Your task to perform on an android device: Open Reddit.com Image 0: 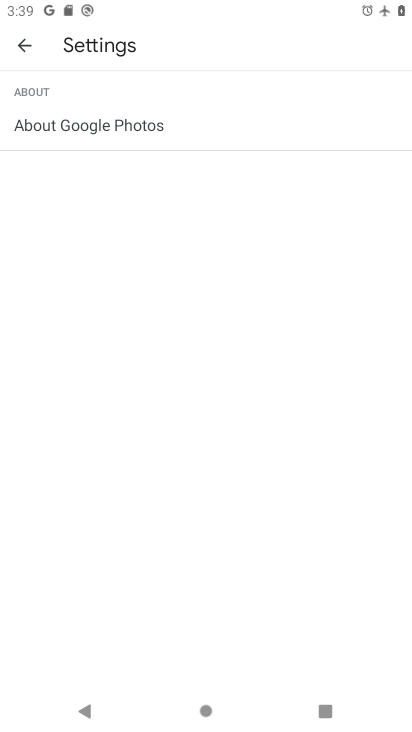
Step 0: press home button
Your task to perform on an android device: Open Reddit.com Image 1: 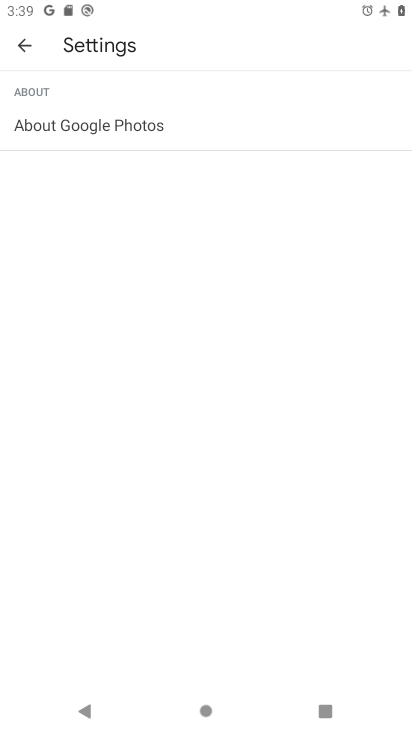
Step 1: press home button
Your task to perform on an android device: Open Reddit.com Image 2: 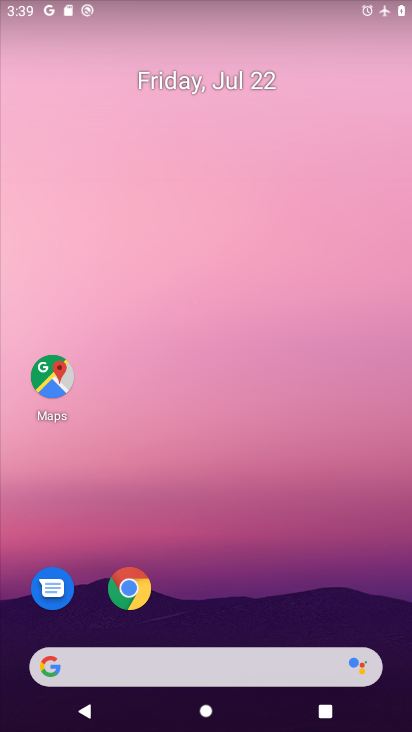
Step 2: drag from (310, 581) to (234, 245)
Your task to perform on an android device: Open Reddit.com Image 3: 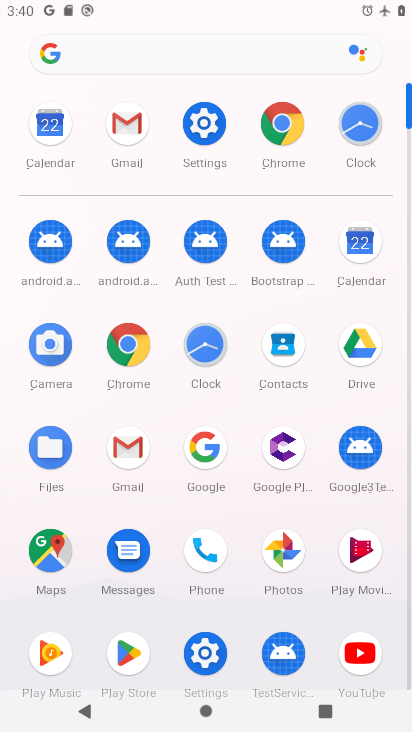
Step 3: click (267, 125)
Your task to perform on an android device: Open Reddit.com Image 4: 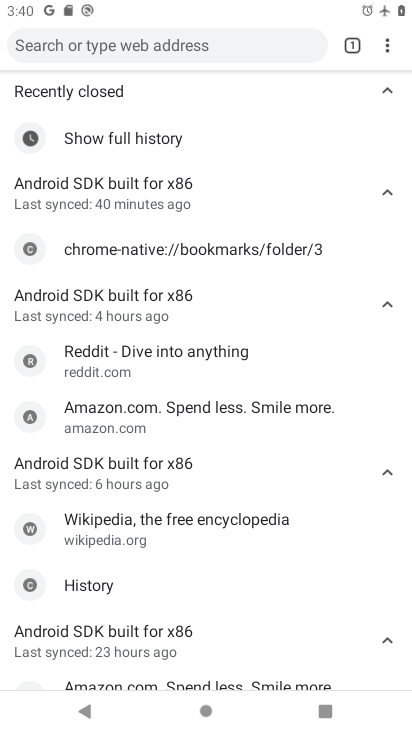
Step 4: click (207, 34)
Your task to perform on an android device: Open Reddit.com Image 5: 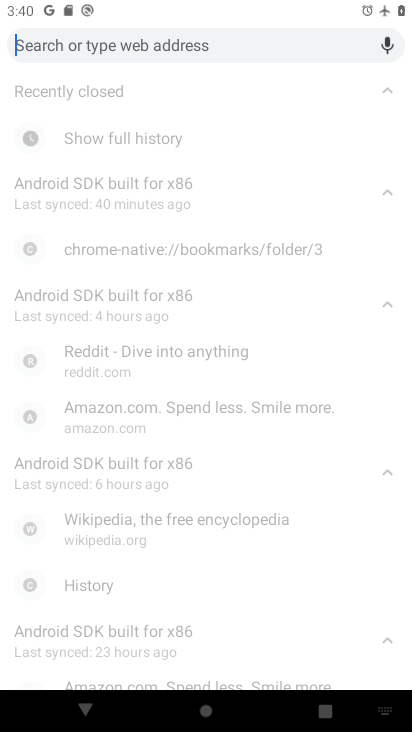
Step 5: type " Reddit.com"
Your task to perform on an android device: Open Reddit.com Image 6: 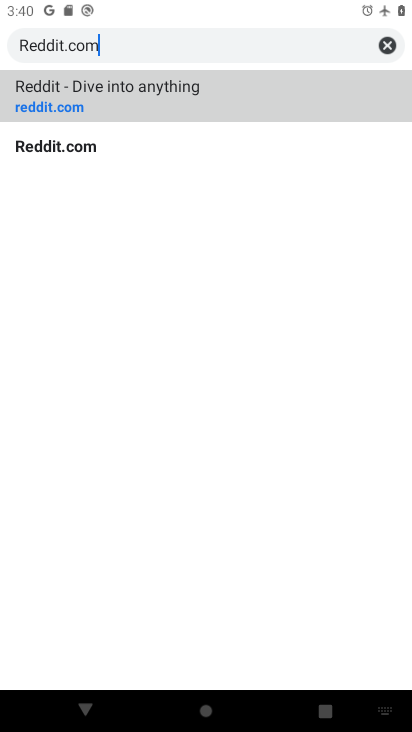
Step 6: type ""
Your task to perform on an android device: Open Reddit.com Image 7: 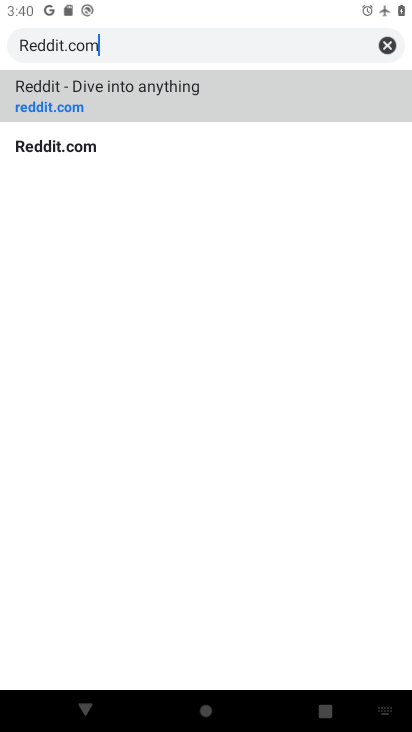
Step 7: click (9, 90)
Your task to perform on an android device: Open Reddit.com Image 8: 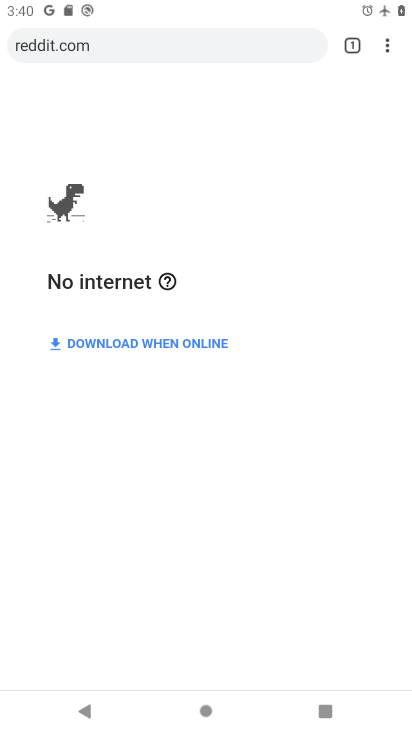
Step 8: drag from (376, 0) to (291, 651)
Your task to perform on an android device: Open Reddit.com Image 9: 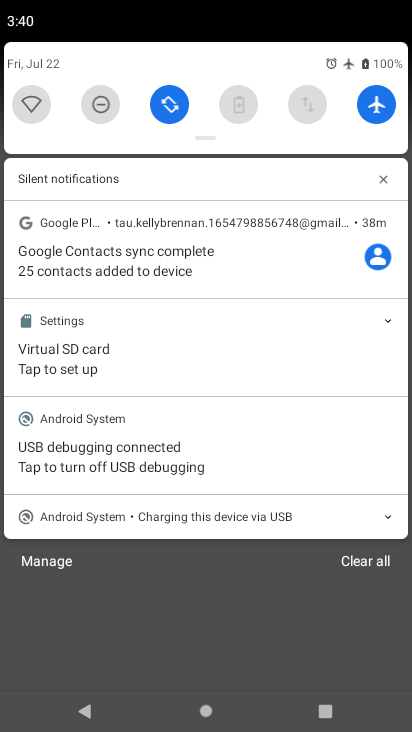
Step 9: click (359, 120)
Your task to perform on an android device: Open Reddit.com Image 10: 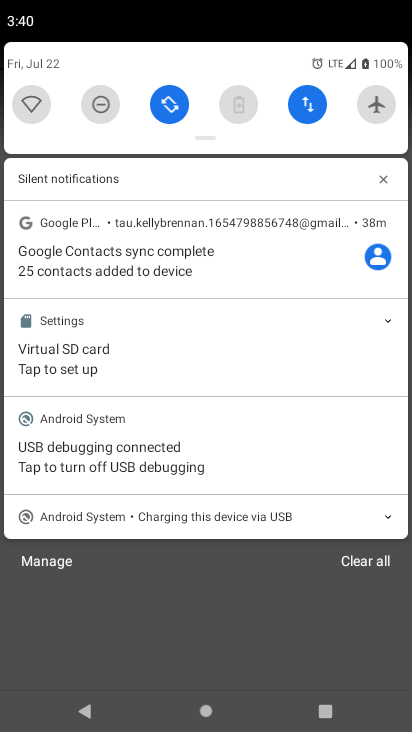
Step 10: task complete